Your task to perform on an android device: turn vacation reply on in the gmail app Image 0: 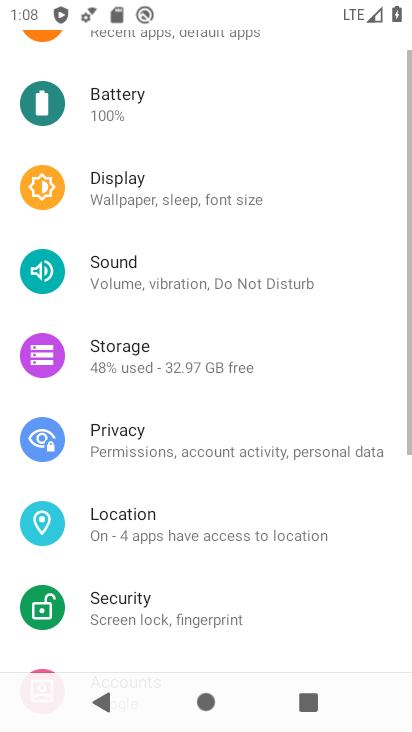
Step 0: drag from (377, 564) to (287, 158)
Your task to perform on an android device: turn vacation reply on in the gmail app Image 1: 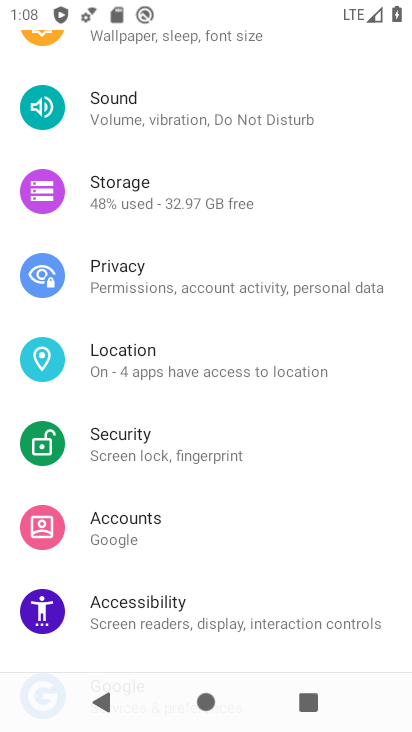
Step 1: click (163, 115)
Your task to perform on an android device: turn vacation reply on in the gmail app Image 2: 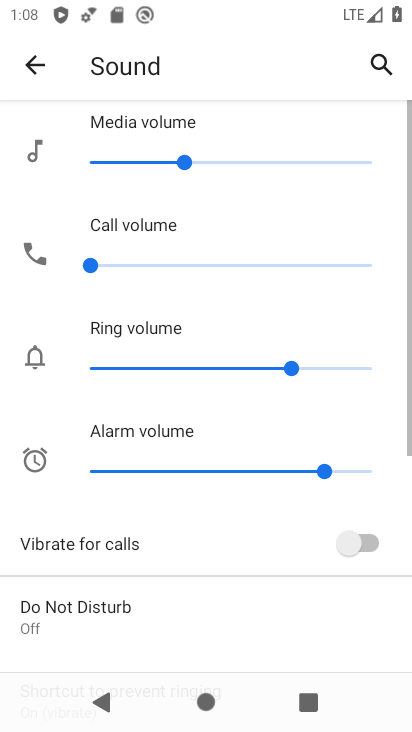
Step 2: press home button
Your task to perform on an android device: turn vacation reply on in the gmail app Image 3: 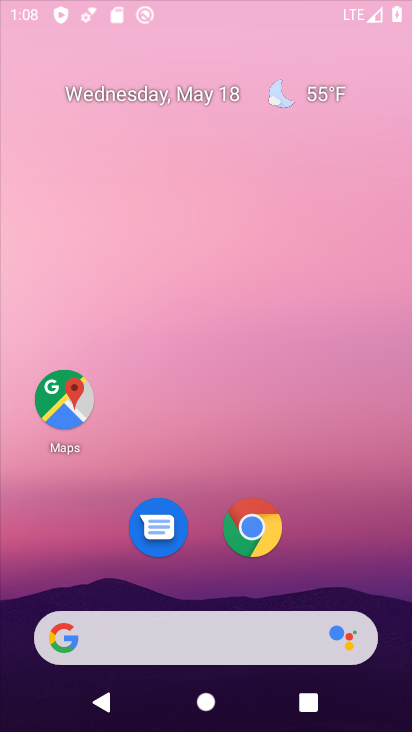
Step 3: drag from (297, 602) to (290, 44)
Your task to perform on an android device: turn vacation reply on in the gmail app Image 4: 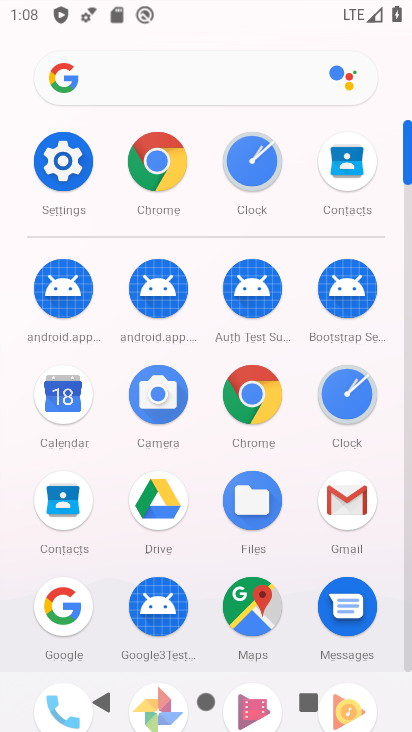
Step 4: click (365, 469)
Your task to perform on an android device: turn vacation reply on in the gmail app Image 5: 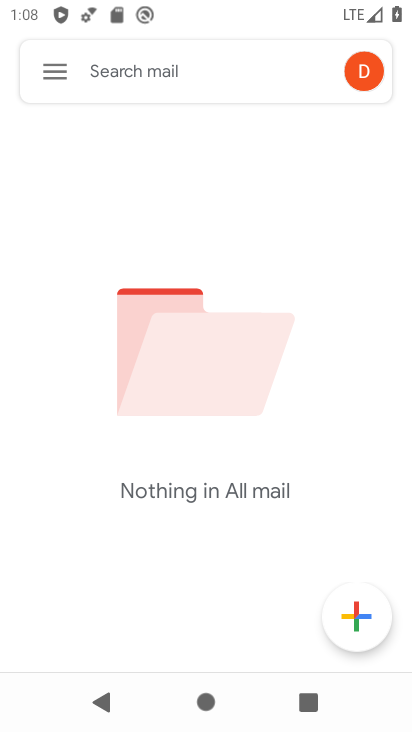
Step 5: click (57, 76)
Your task to perform on an android device: turn vacation reply on in the gmail app Image 6: 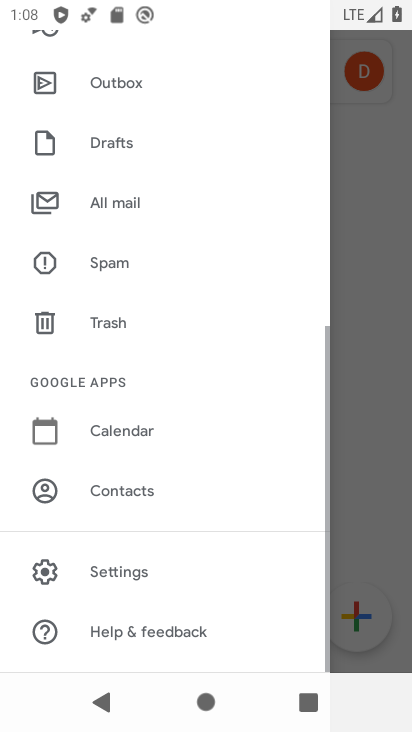
Step 6: click (144, 557)
Your task to perform on an android device: turn vacation reply on in the gmail app Image 7: 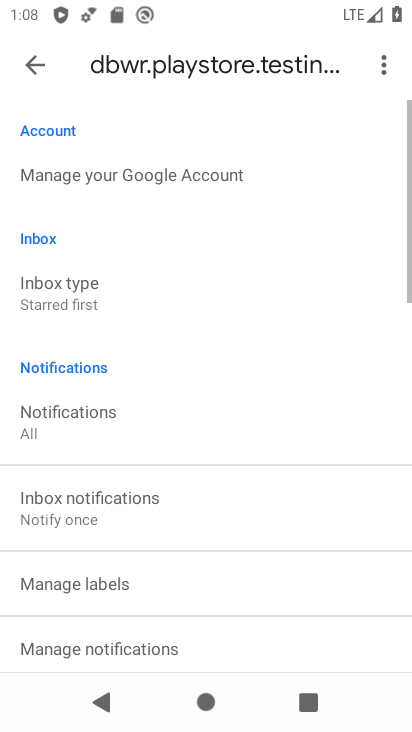
Step 7: drag from (242, 623) to (217, 103)
Your task to perform on an android device: turn vacation reply on in the gmail app Image 8: 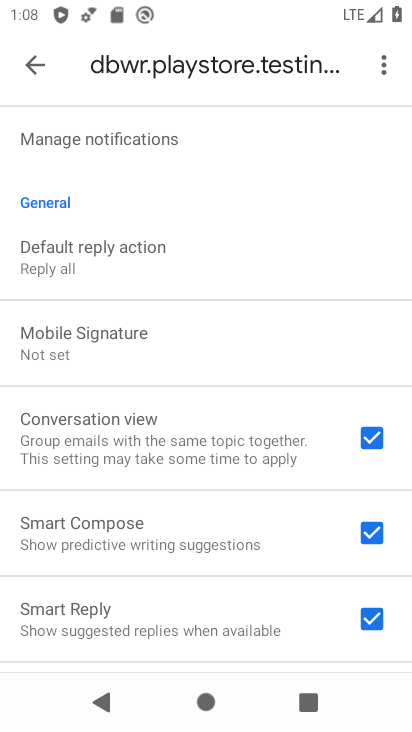
Step 8: drag from (221, 612) to (217, 222)
Your task to perform on an android device: turn vacation reply on in the gmail app Image 9: 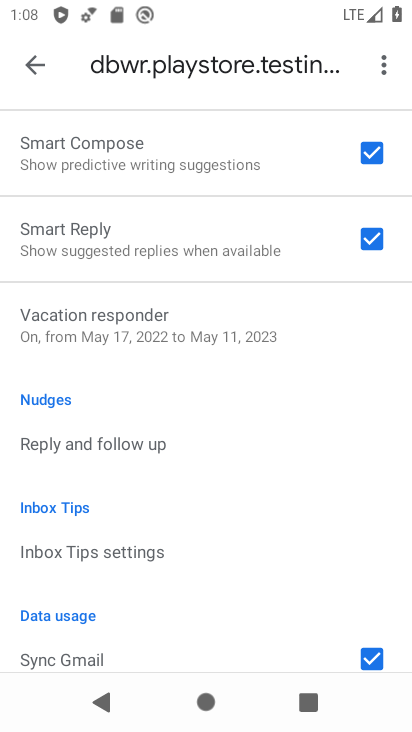
Step 9: click (121, 327)
Your task to perform on an android device: turn vacation reply on in the gmail app Image 10: 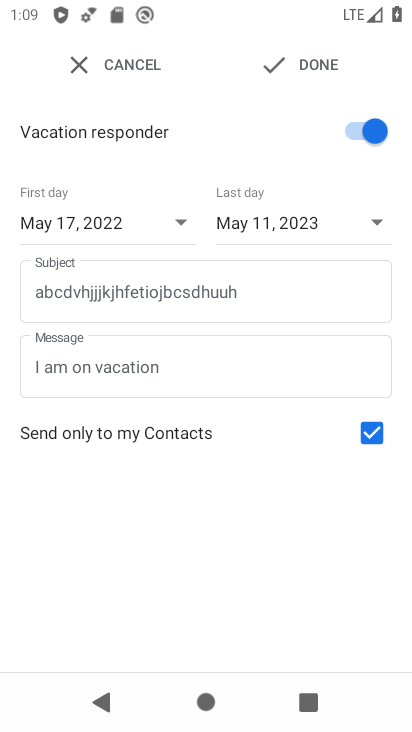
Step 10: click (305, 64)
Your task to perform on an android device: turn vacation reply on in the gmail app Image 11: 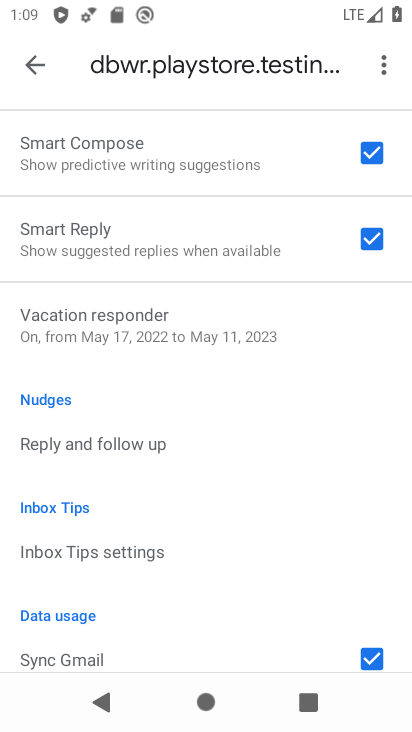
Step 11: task complete